Your task to perform on an android device: Go to battery settings Image 0: 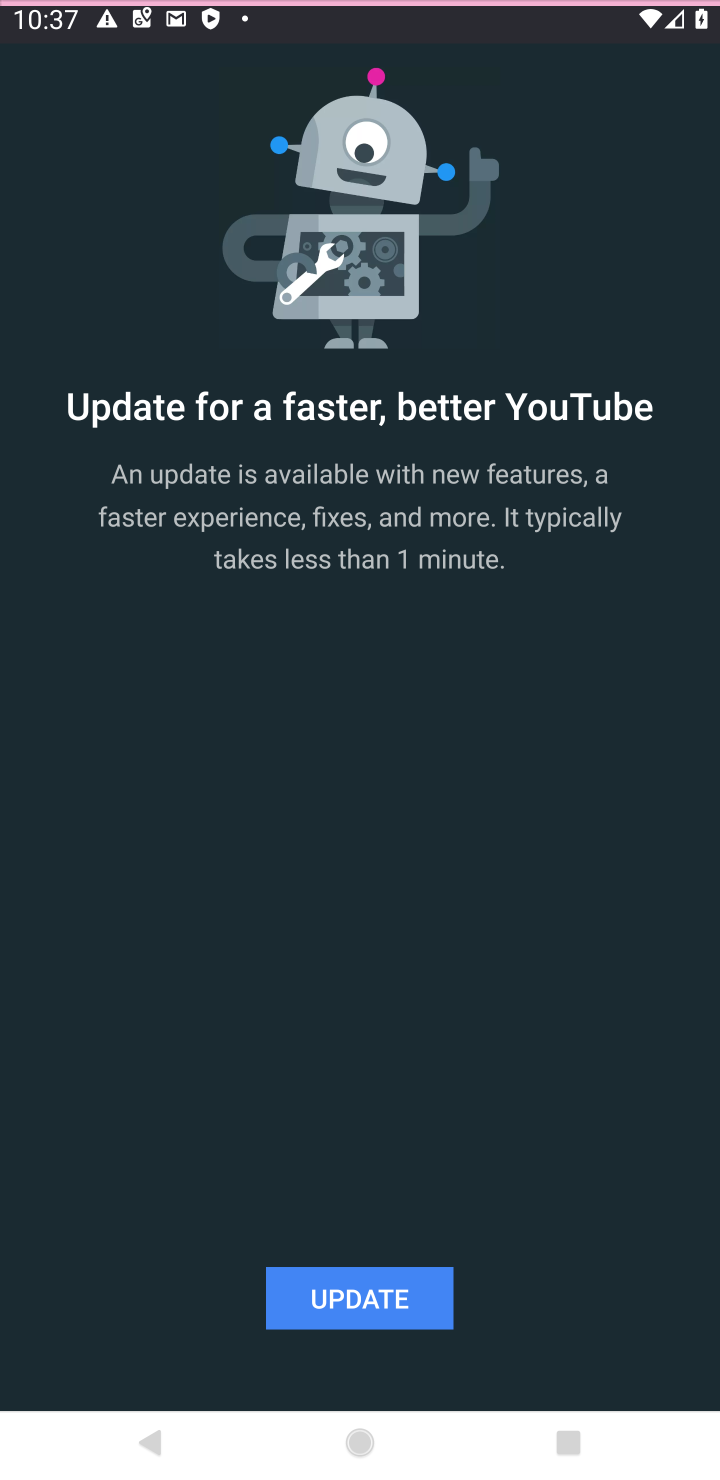
Step 0: click (671, 737)
Your task to perform on an android device: Go to battery settings Image 1: 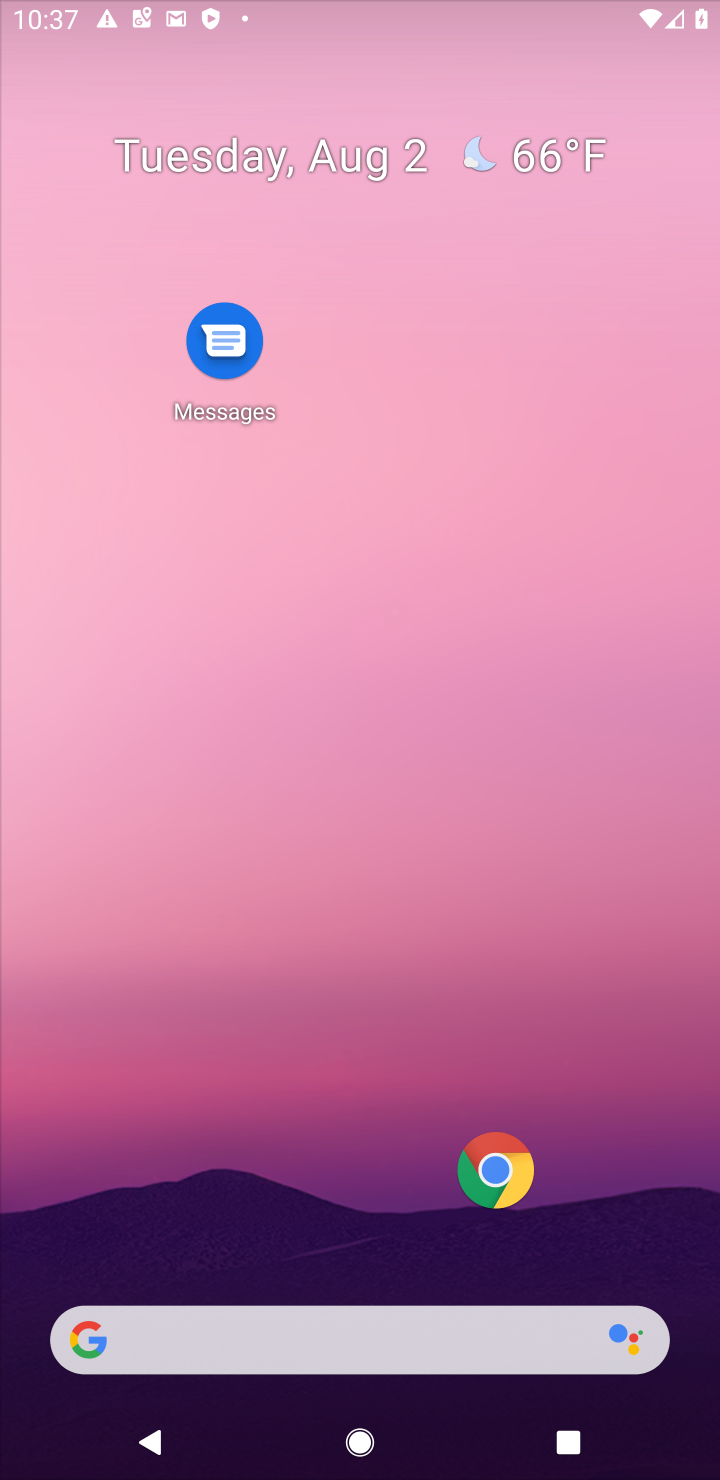
Step 1: drag from (271, 978) to (415, 498)
Your task to perform on an android device: Go to battery settings Image 2: 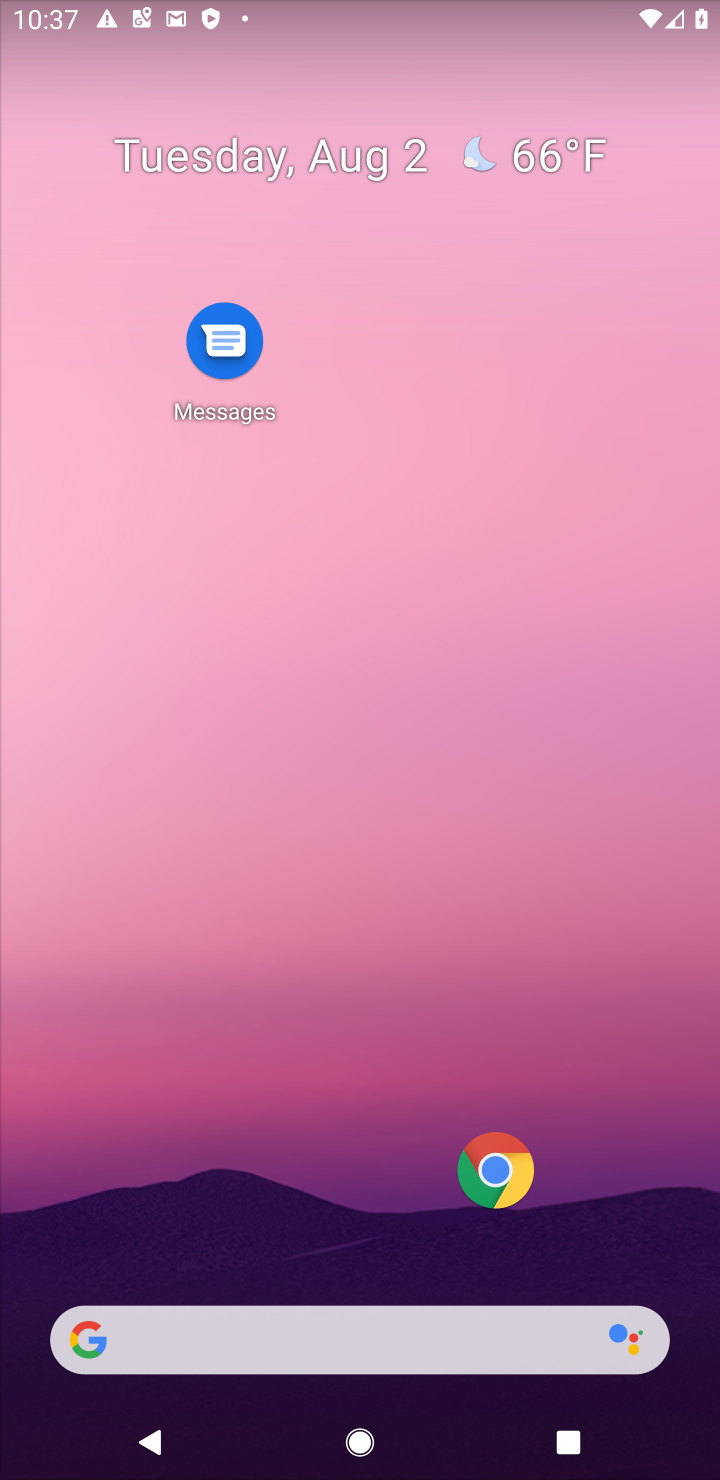
Step 2: drag from (320, 1075) to (518, 368)
Your task to perform on an android device: Go to battery settings Image 3: 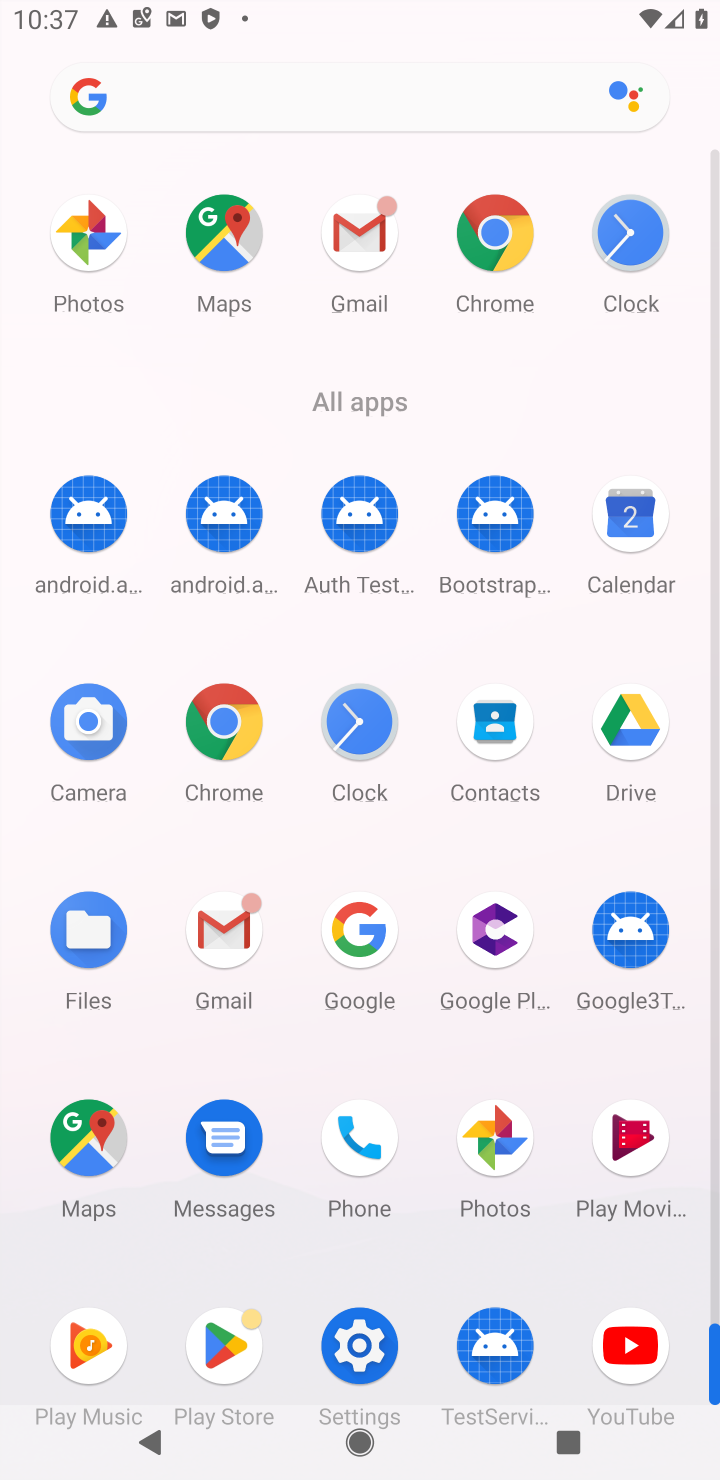
Step 3: click (358, 1332)
Your task to perform on an android device: Go to battery settings Image 4: 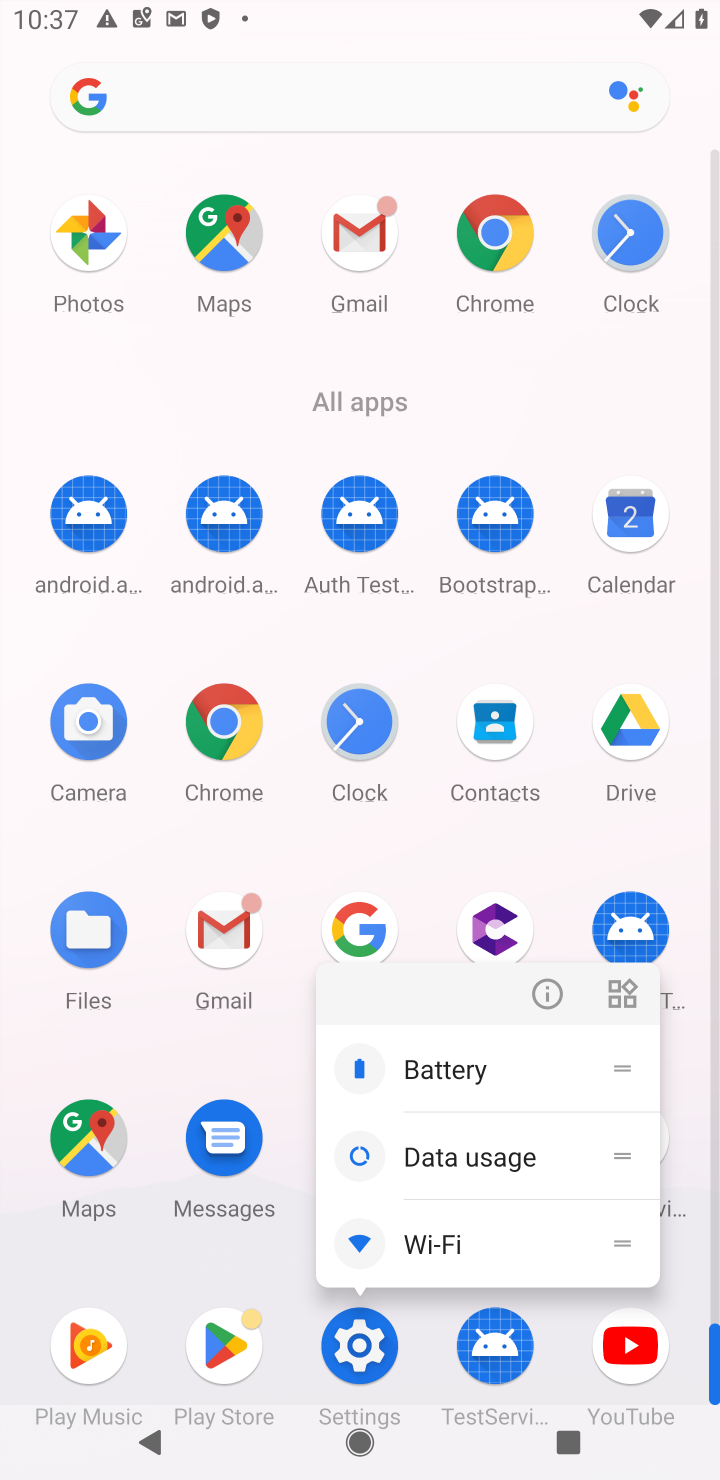
Step 4: click (557, 987)
Your task to perform on an android device: Go to battery settings Image 5: 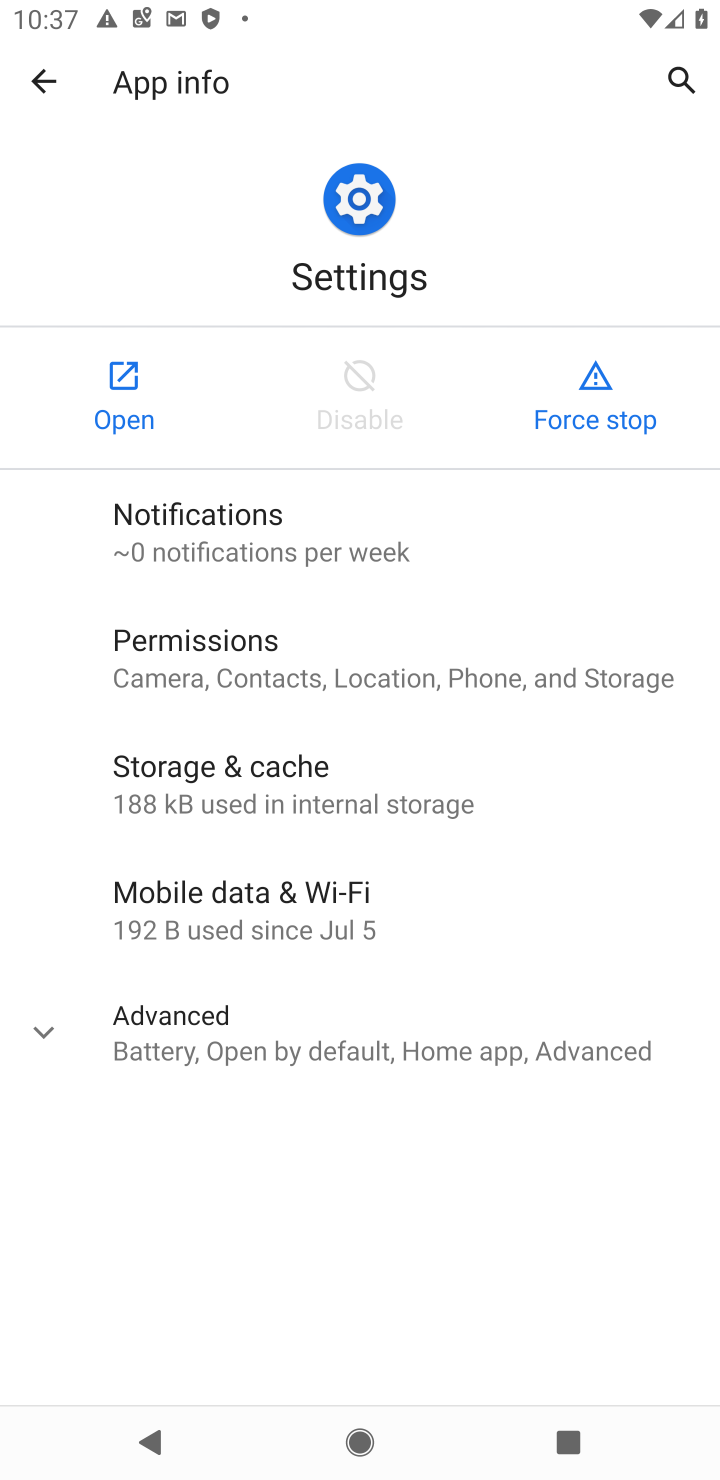
Step 5: click (102, 412)
Your task to perform on an android device: Go to battery settings Image 6: 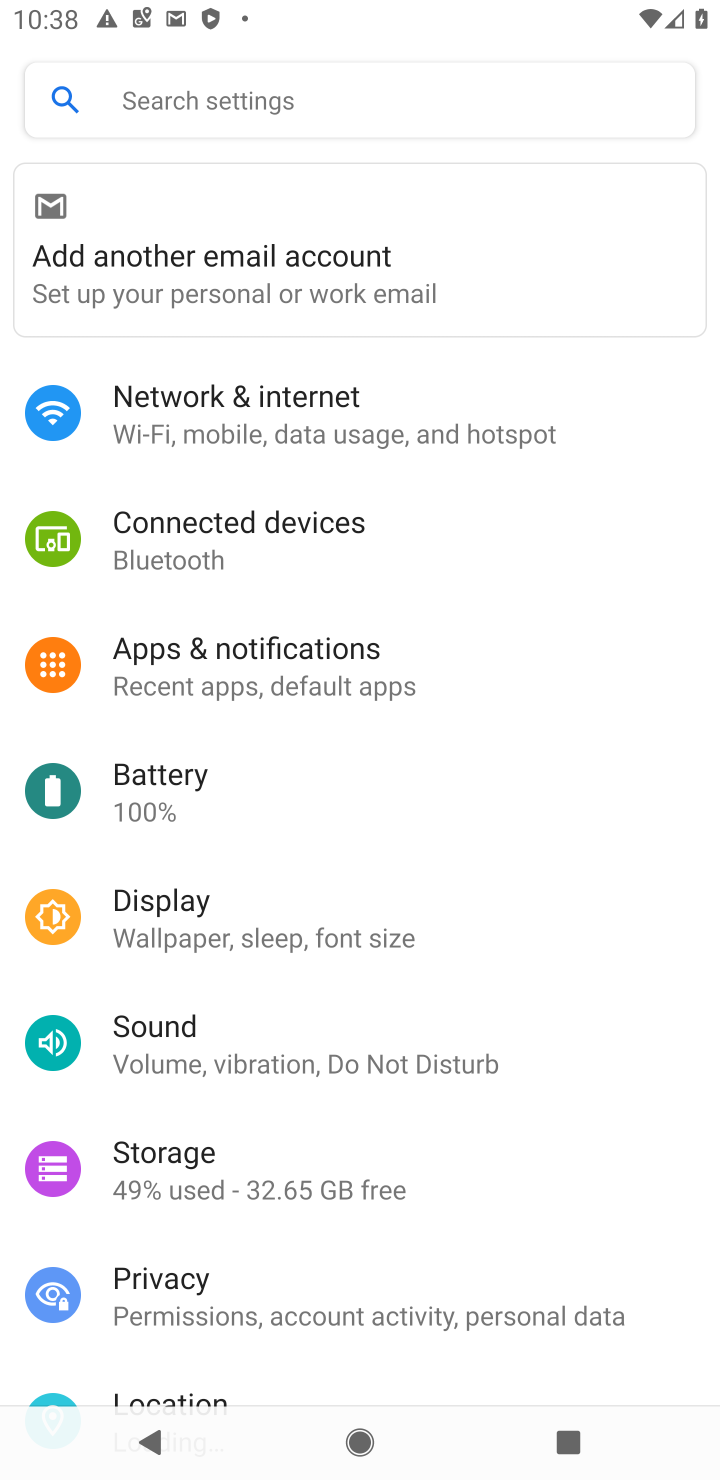
Step 6: drag from (241, 1136) to (336, 693)
Your task to perform on an android device: Go to battery settings Image 7: 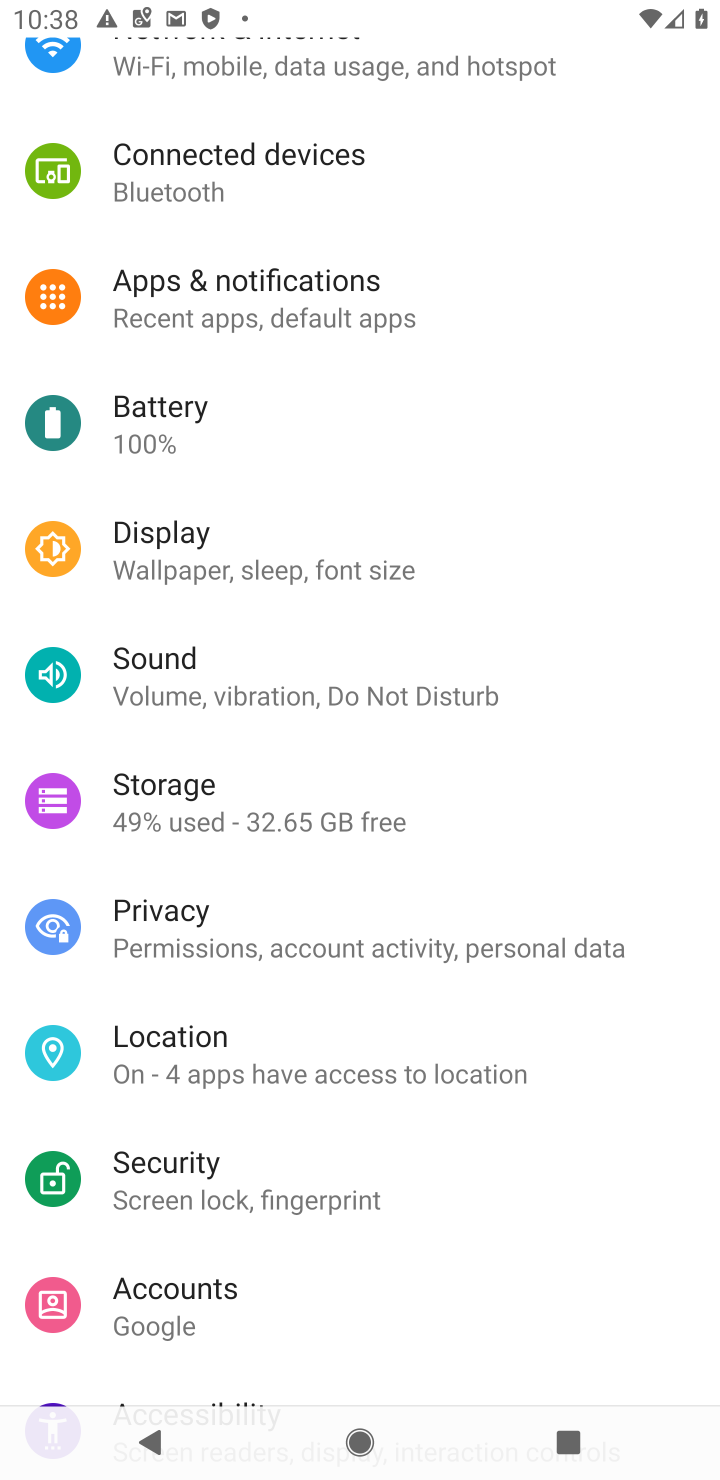
Step 7: click (216, 409)
Your task to perform on an android device: Go to battery settings Image 8: 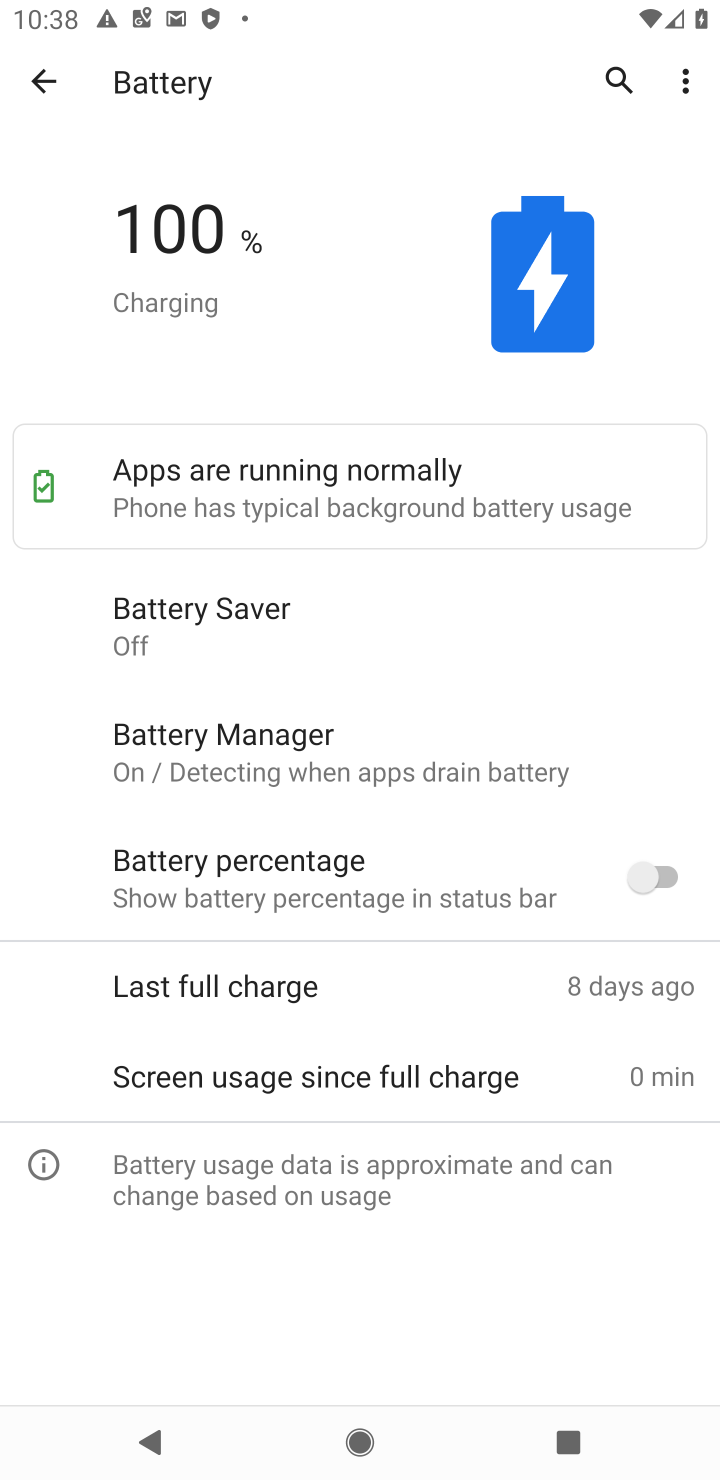
Step 8: drag from (428, 954) to (450, 362)
Your task to perform on an android device: Go to battery settings Image 9: 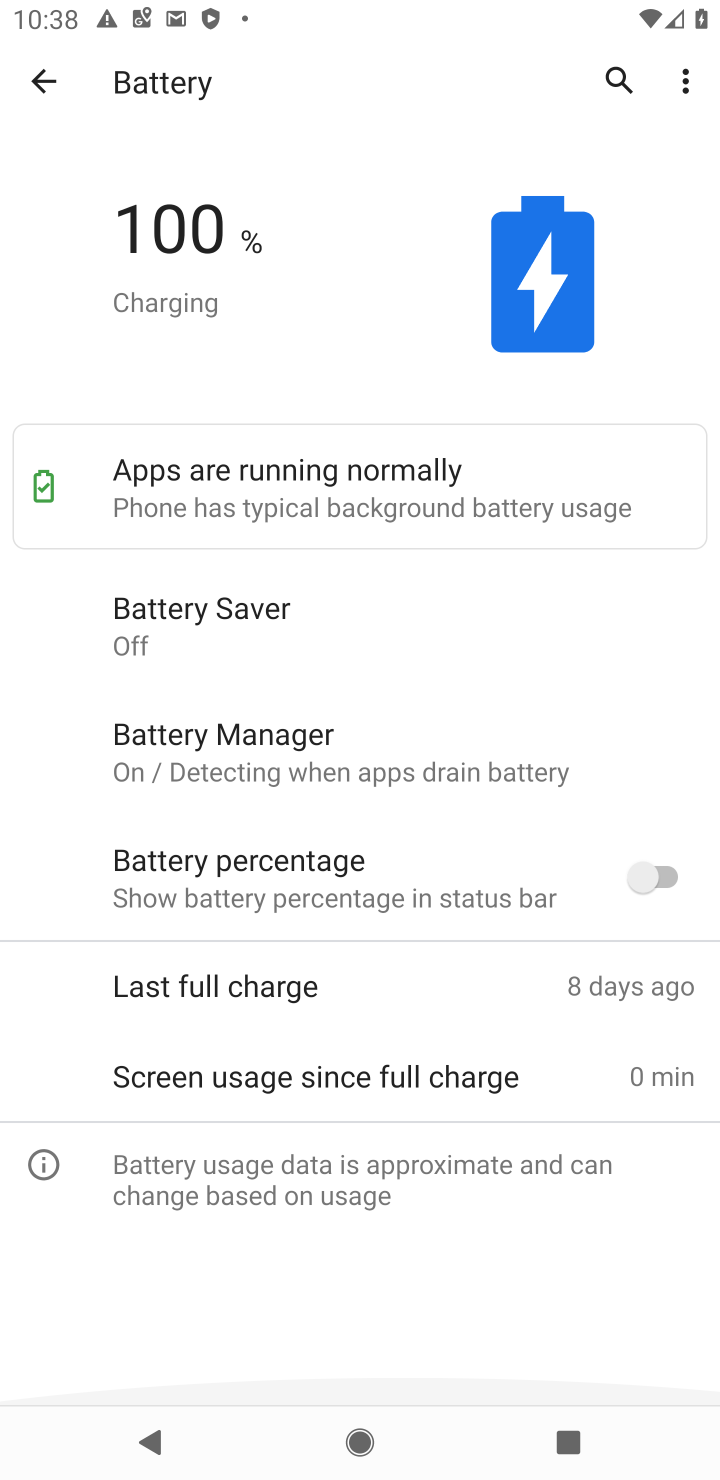
Step 9: drag from (467, 923) to (545, 308)
Your task to perform on an android device: Go to battery settings Image 10: 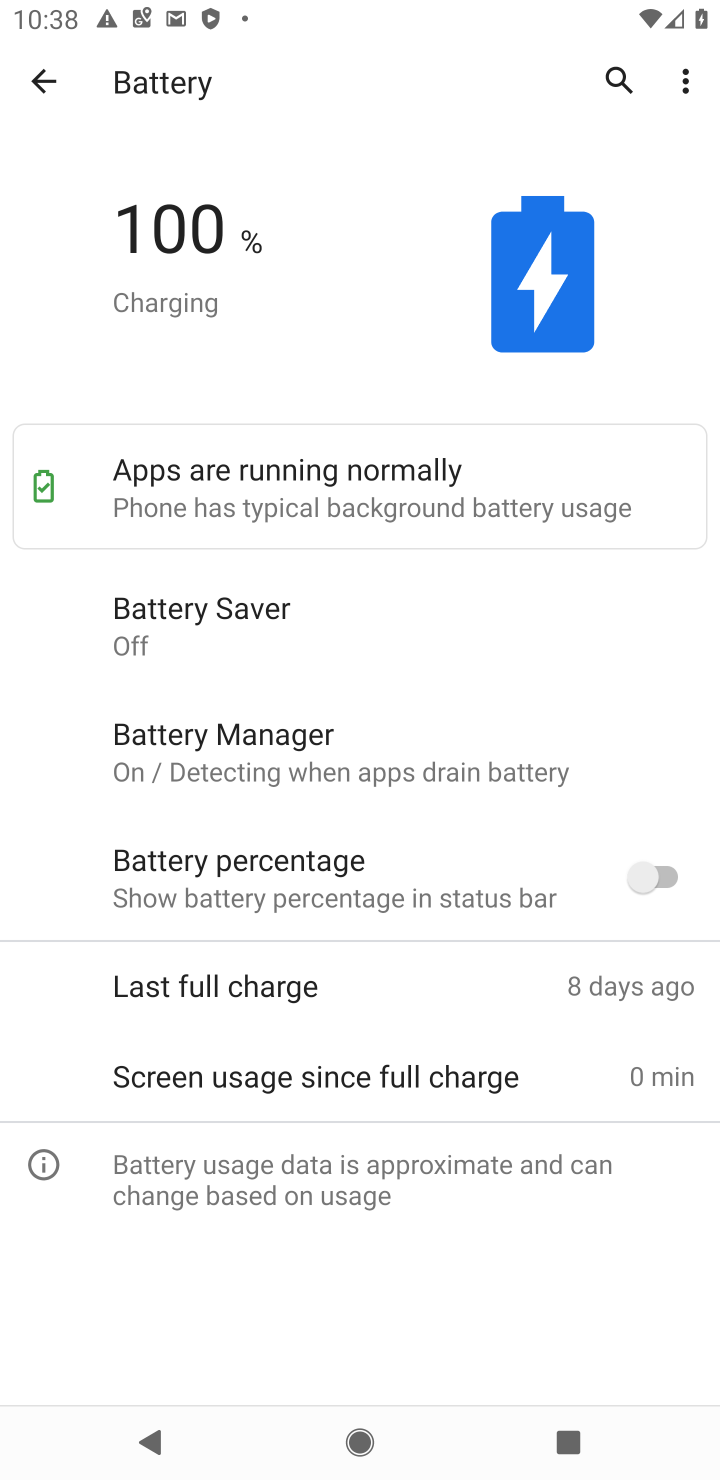
Step 10: click (698, 66)
Your task to perform on an android device: Go to battery settings Image 11: 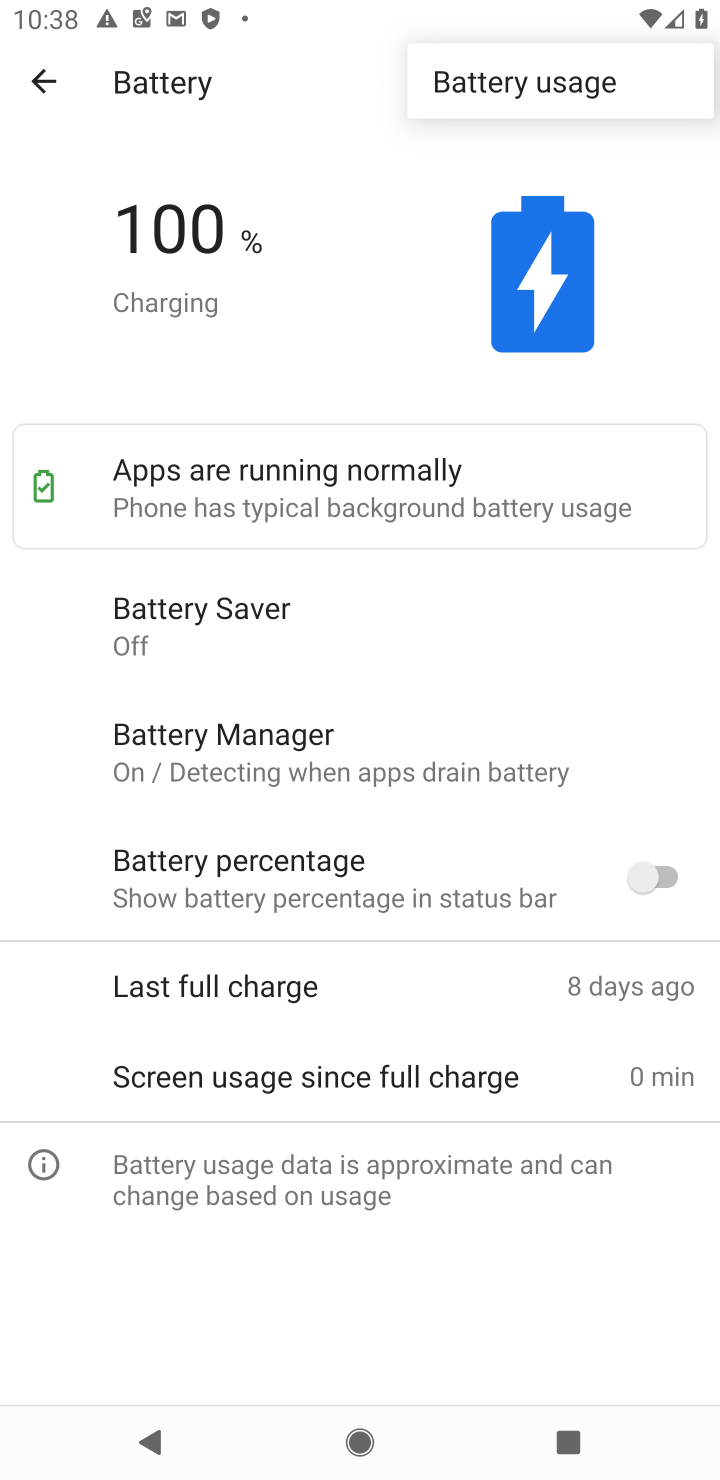
Step 11: task complete